Your task to perform on an android device: see creations saved in the google photos Image 0: 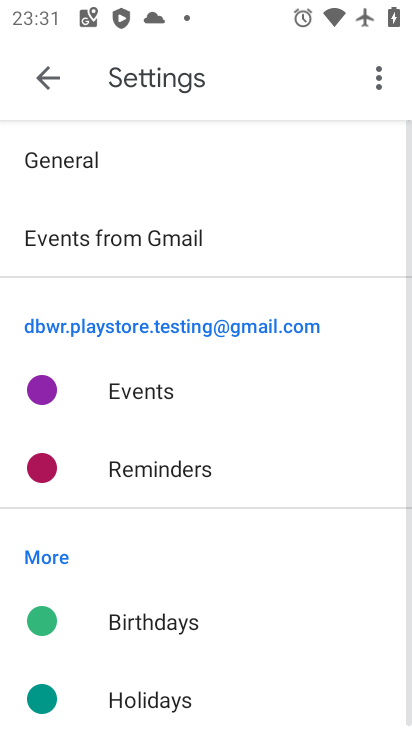
Step 0: press home button
Your task to perform on an android device: see creations saved in the google photos Image 1: 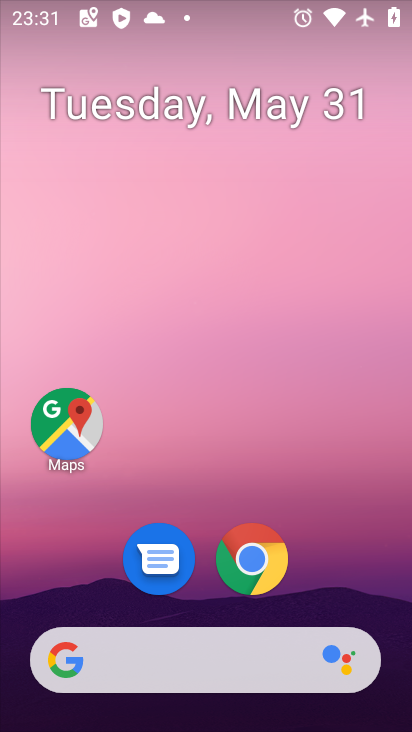
Step 1: drag from (337, 558) to (321, 43)
Your task to perform on an android device: see creations saved in the google photos Image 2: 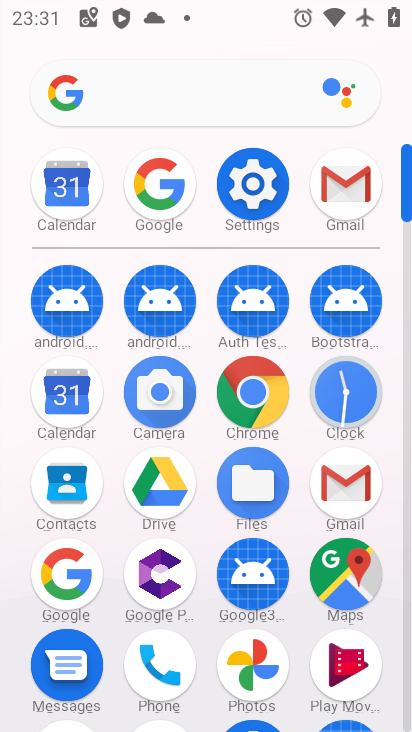
Step 2: click (258, 663)
Your task to perform on an android device: see creations saved in the google photos Image 3: 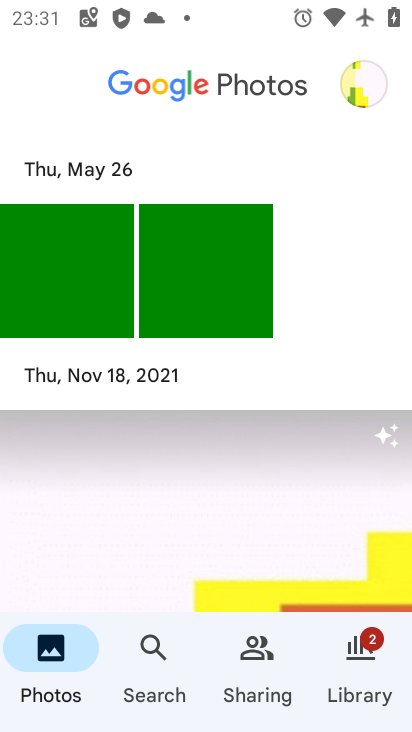
Step 3: click (153, 653)
Your task to perform on an android device: see creations saved in the google photos Image 4: 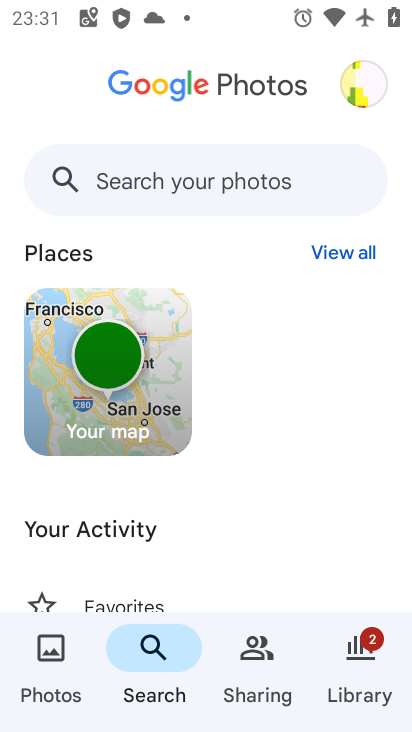
Step 4: drag from (273, 536) to (268, 133)
Your task to perform on an android device: see creations saved in the google photos Image 5: 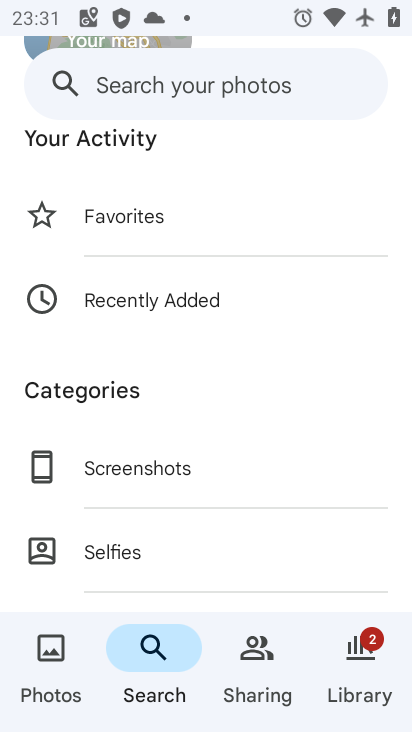
Step 5: drag from (215, 554) to (204, 230)
Your task to perform on an android device: see creations saved in the google photos Image 6: 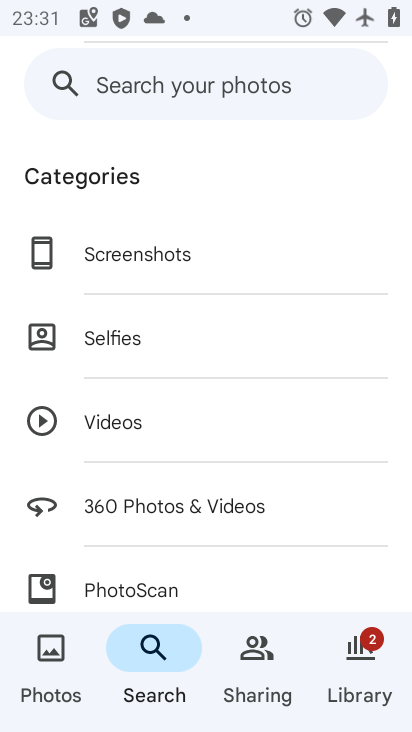
Step 6: drag from (206, 561) to (228, 246)
Your task to perform on an android device: see creations saved in the google photos Image 7: 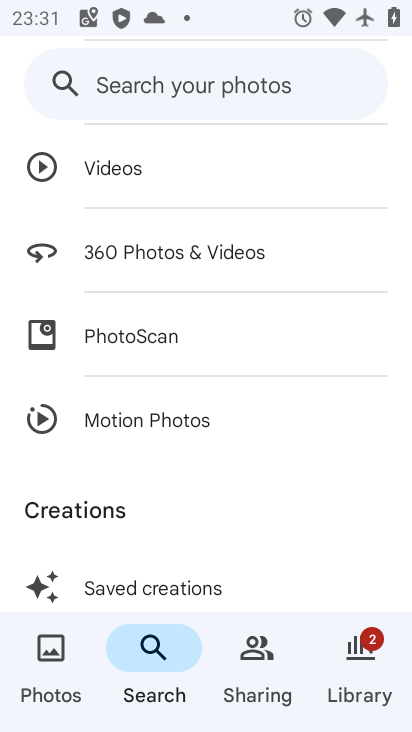
Step 7: click (130, 590)
Your task to perform on an android device: see creations saved in the google photos Image 8: 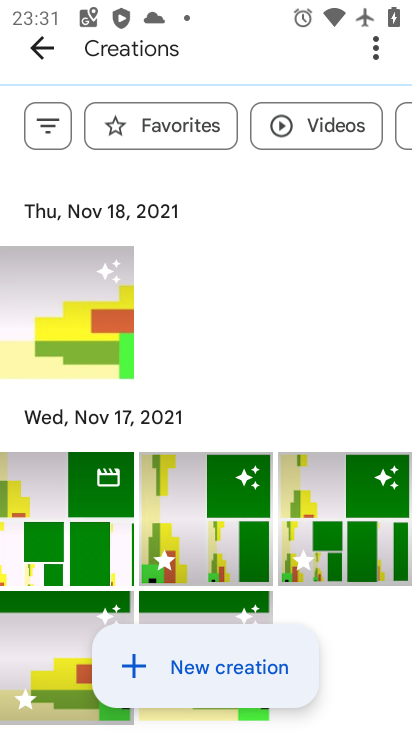
Step 8: task complete